Your task to perform on an android device: make emails show in primary in the gmail app Image 0: 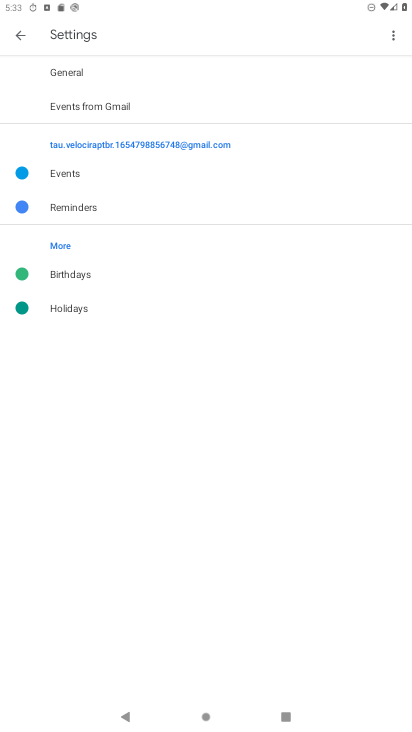
Step 0: press home button
Your task to perform on an android device: make emails show in primary in the gmail app Image 1: 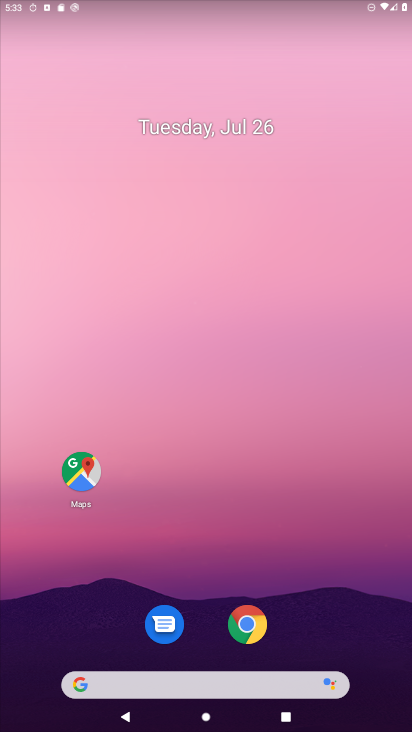
Step 1: drag from (264, 704) to (259, 34)
Your task to perform on an android device: make emails show in primary in the gmail app Image 2: 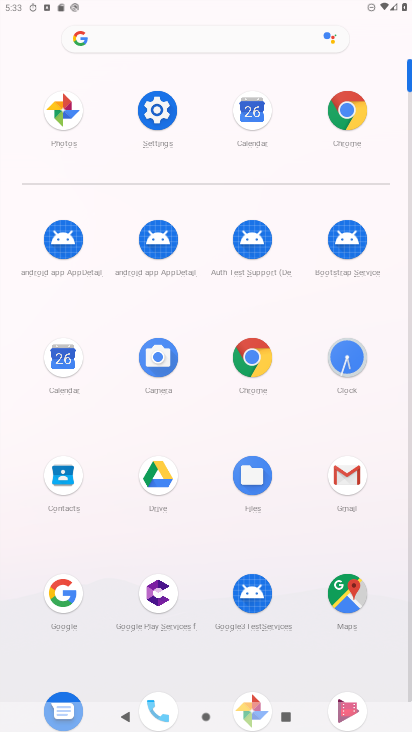
Step 2: click (357, 472)
Your task to perform on an android device: make emails show in primary in the gmail app Image 3: 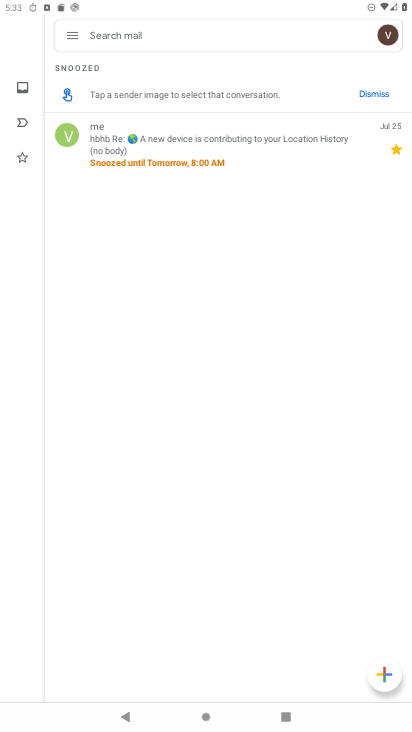
Step 3: click (65, 31)
Your task to perform on an android device: make emails show in primary in the gmail app Image 4: 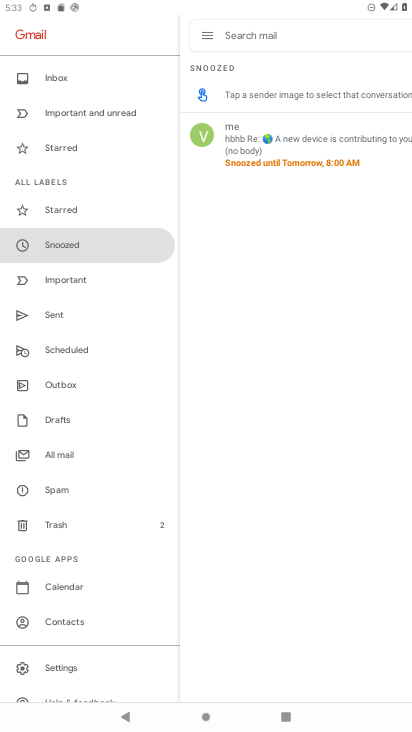
Step 4: click (85, 671)
Your task to perform on an android device: make emails show in primary in the gmail app Image 5: 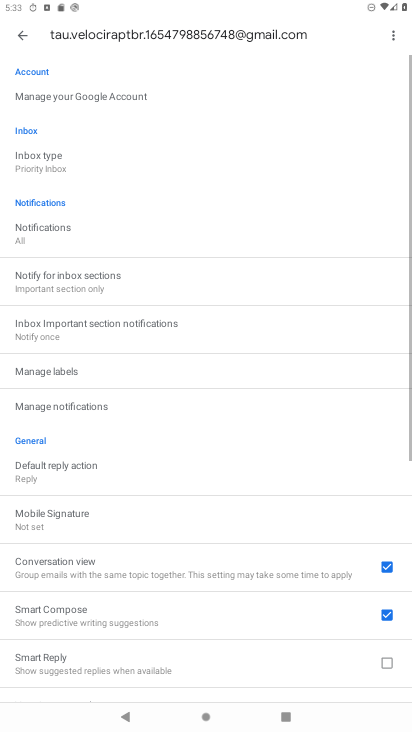
Step 5: click (74, 162)
Your task to perform on an android device: make emails show in primary in the gmail app Image 6: 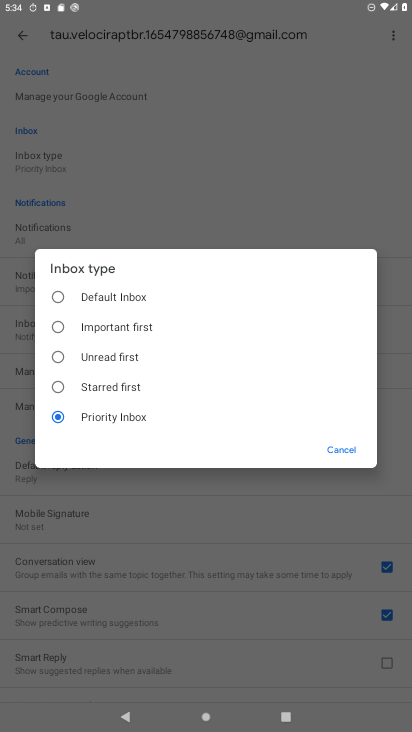
Step 6: click (54, 293)
Your task to perform on an android device: make emails show in primary in the gmail app Image 7: 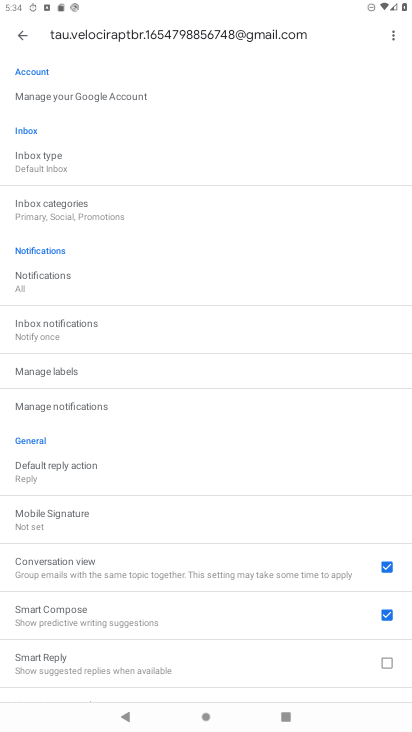
Step 7: press back button
Your task to perform on an android device: make emails show in primary in the gmail app Image 8: 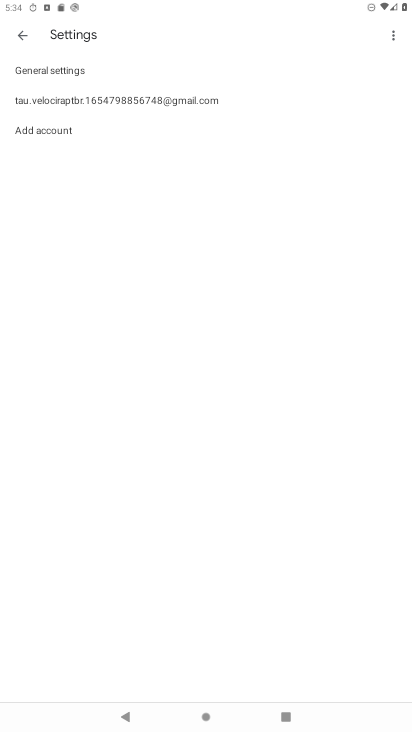
Step 8: press back button
Your task to perform on an android device: make emails show in primary in the gmail app Image 9: 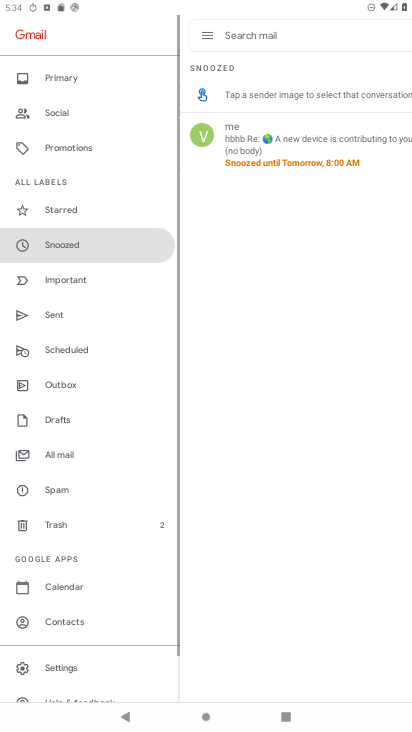
Step 9: click (73, 85)
Your task to perform on an android device: make emails show in primary in the gmail app Image 10: 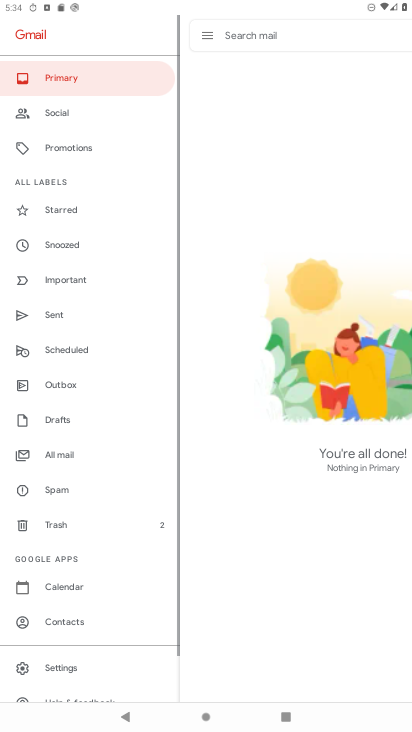
Step 10: task complete